Your task to perform on an android device: Set the phone to "Do not disturb". Image 0: 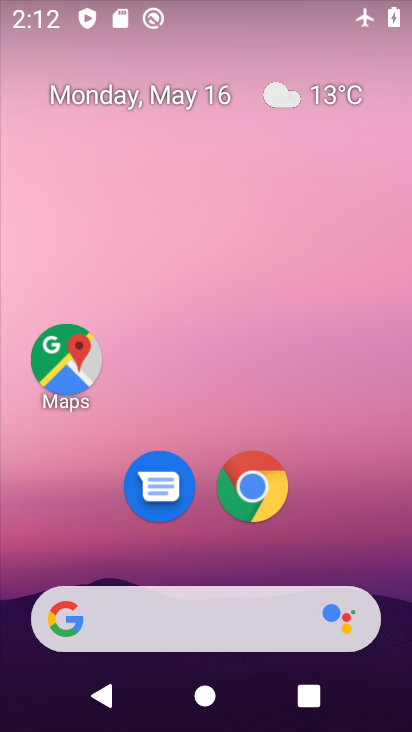
Step 0: drag from (362, 488) to (293, 9)
Your task to perform on an android device: Set the phone to "Do not disturb". Image 1: 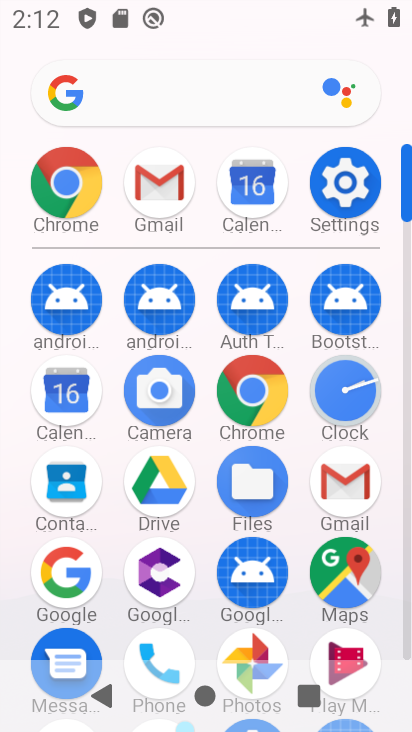
Step 1: click (345, 172)
Your task to perform on an android device: Set the phone to "Do not disturb". Image 2: 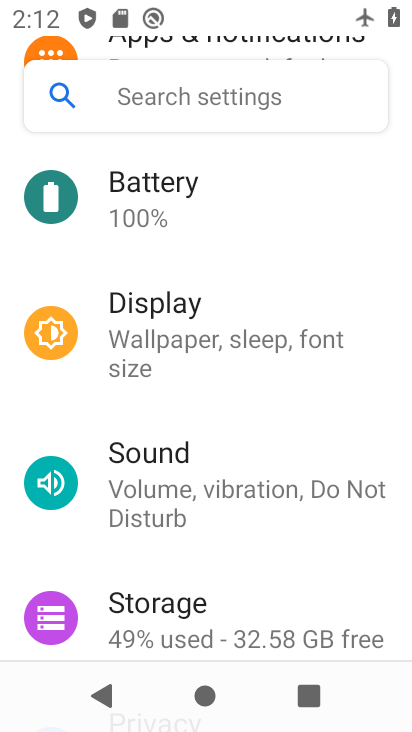
Step 2: drag from (273, 508) to (255, 175)
Your task to perform on an android device: Set the phone to "Do not disturb". Image 3: 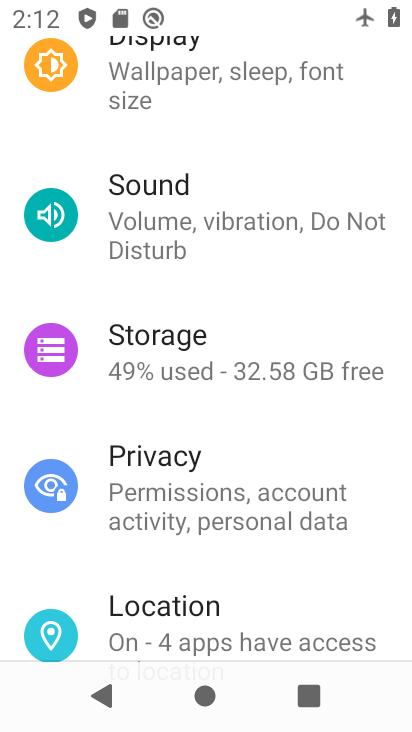
Step 3: click (160, 193)
Your task to perform on an android device: Set the phone to "Do not disturb". Image 4: 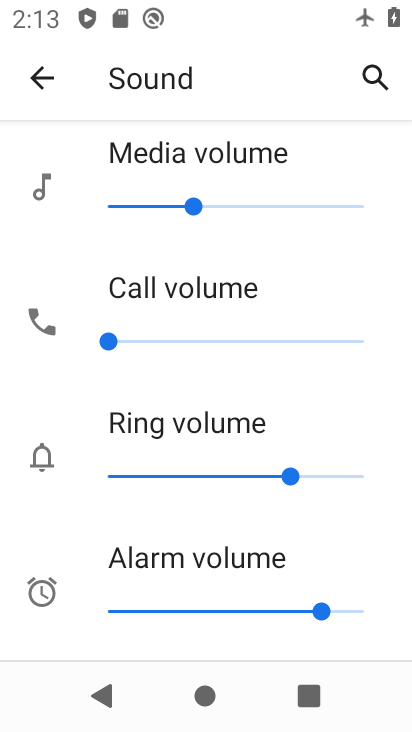
Step 4: drag from (266, 508) to (241, 120)
Your task to perform on an android device: Set the phone to "Do not disturb". Image 5: 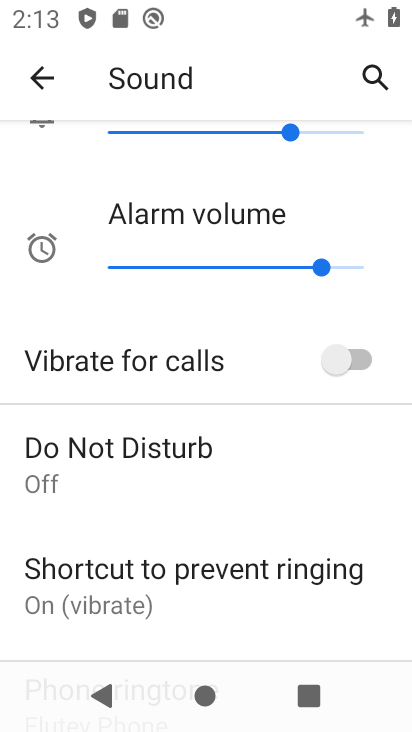
Step 5: drag from (190, 537) to (149, 334)
Your task to perform on an android device: Set the phone to "Do not disturb". Image 6: 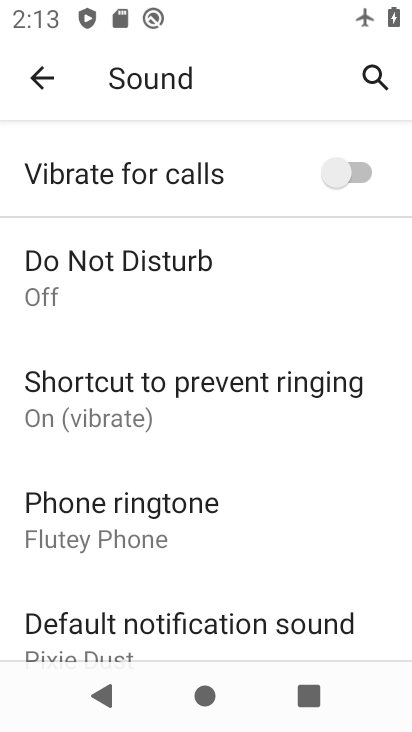
Step 6: drag from (204, 571) to (146, 251)
Your task to perform on an android device: Set the phone to "Do not disturb". Image 7: 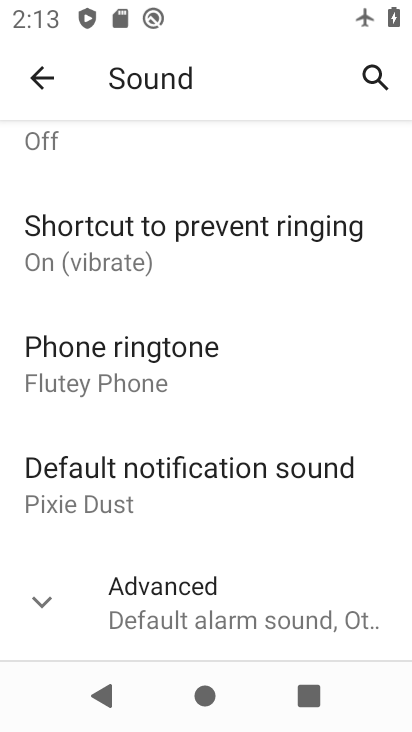
Step 7: drag from (116, 238) to (154, 562)
Your task to perform on an android device: Set the phone to "Do not disturb". Image 8: 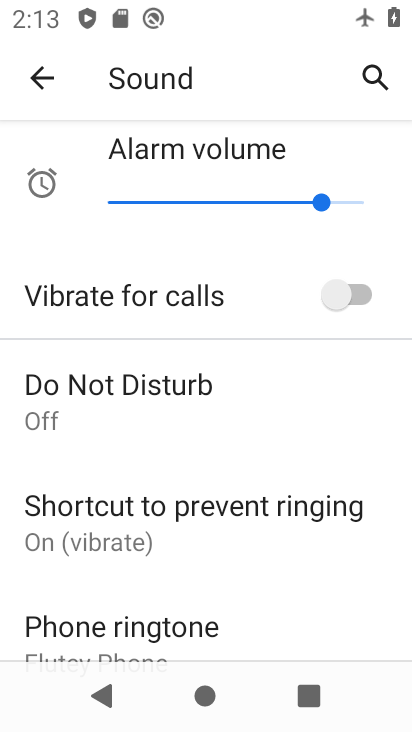
Step 8: click (105, 380)
Your task to perform on an android device: Set the phone to "Do not disturb". Image 9: 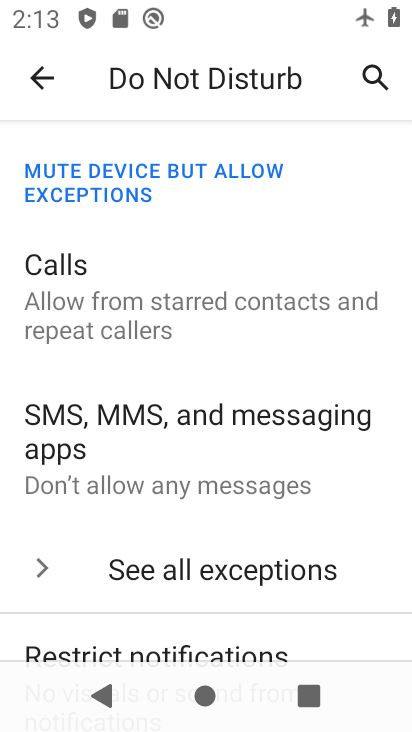
Step 9: task complete